Your task to perform on an android device: turn notification dots off Image 0: 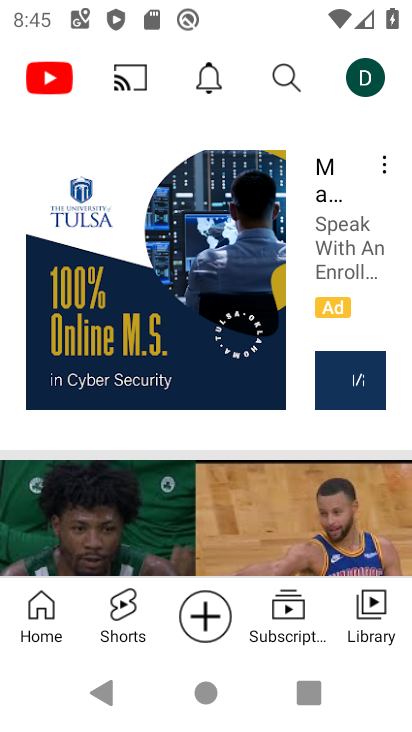
Step 0: press home button
Your task to perform on an android device: turn notification dots off Image 1: 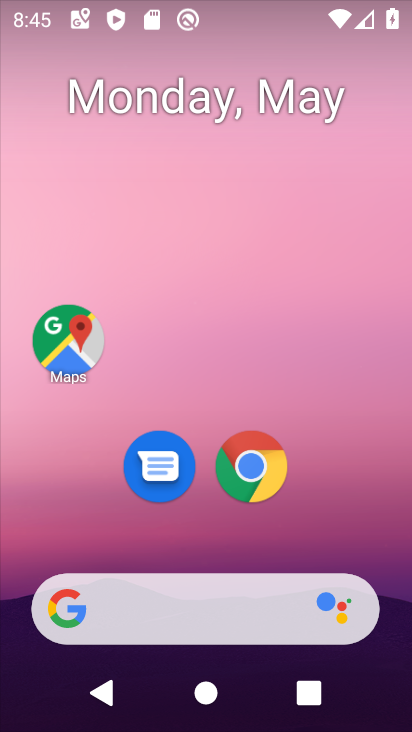
Step 1: drag from (240, 638) to (283, 131)
Your task to perform on an android device: turn notification dots off Image 2: 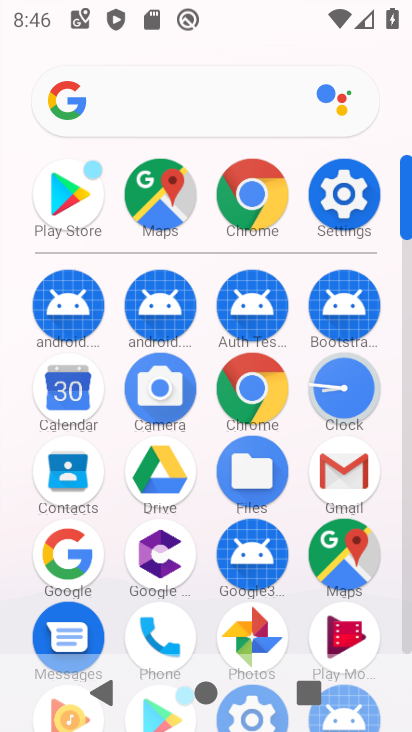
Step 2: click (348, 212)
Your task to perform on an android device: turn notification dots off Image 3: 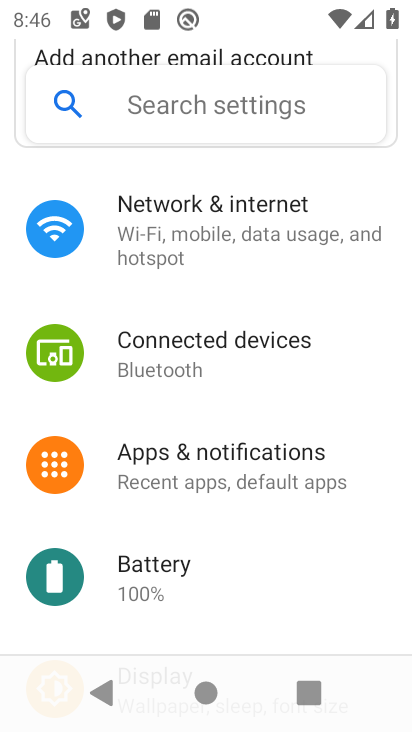
Step 3: click (198, 104)
Your task to perform on an android device: turn notification dots off Image 4: 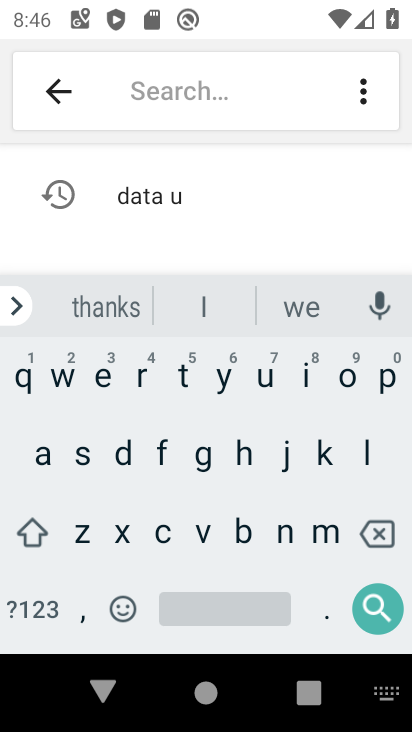
Step 4: click (113, 461)
Your task to perform on an android device: turn notification dots off Image 5: 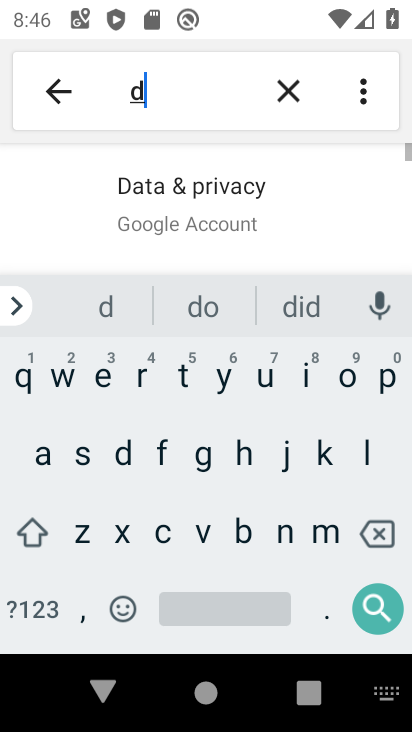
Step 5: click (338, 372)
Your task to perform on an android device: turn notification dots off Image 6: 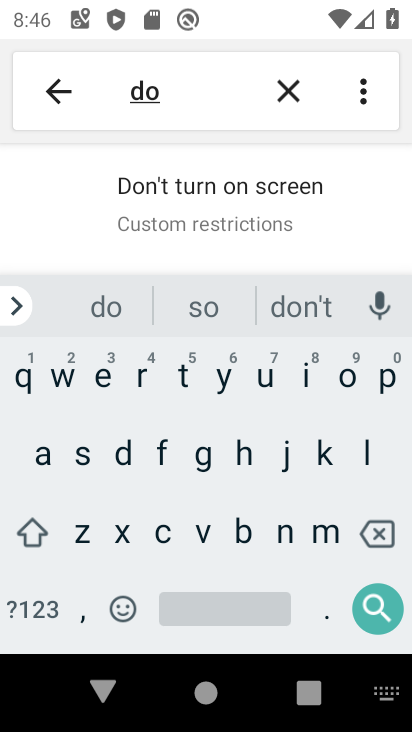
Step 6: click (170, 378)
Your task to perform on an android device: turn notification dots off Image 7: 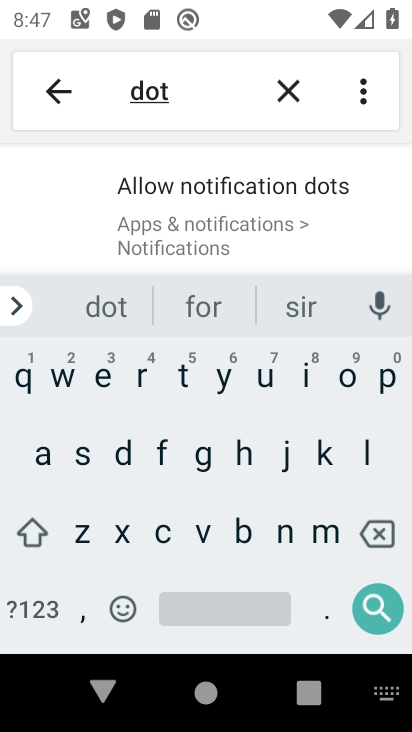
Step 7: click (242, 186)
Your task to perform on an android device: turn notification dots off Image 8: 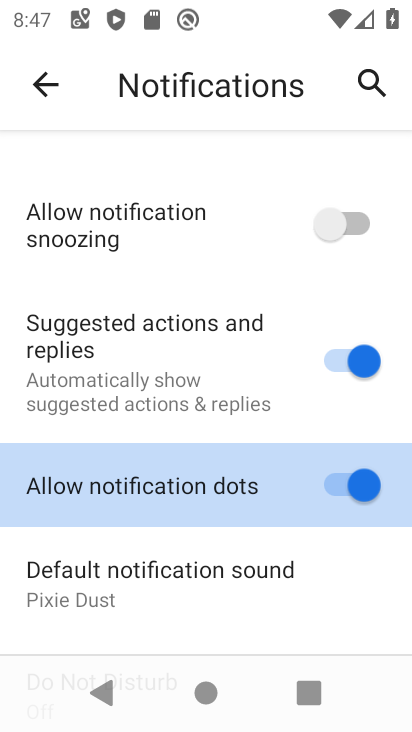
Step 8: click (340, 492)
Your task to perform on an android device: turn notification dots off Image 9: 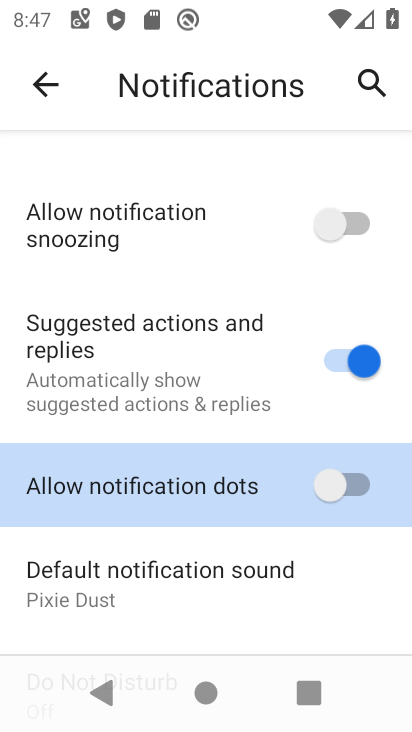
Step 9: task complete